Your task to perform on an android device: add a label to a message in the gmail app Image 0: 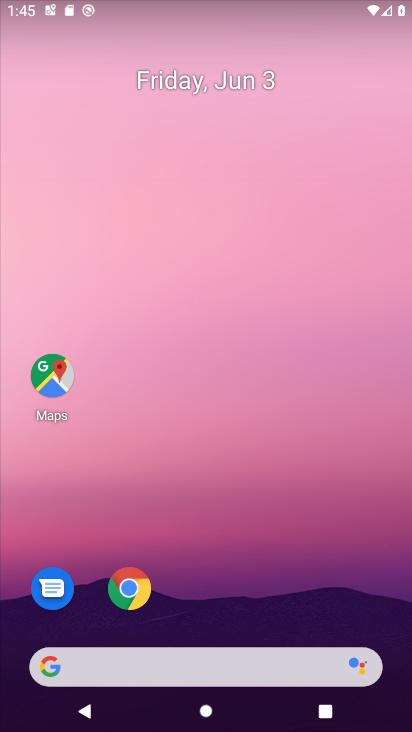
Step 0: drag from (195, 617) to (152, 43)
Your task to perform on an android device: add a label to a message in the gmail app Image 1: 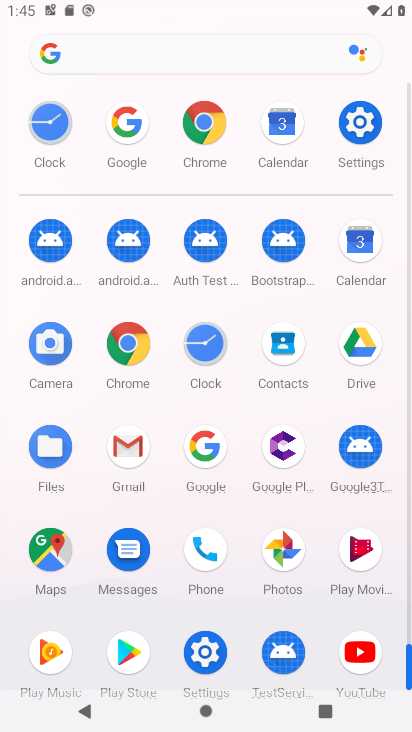
Step 1: click (122, 467)
Your task to perform on an android device: add a label to a message in the gmail app Image 2: 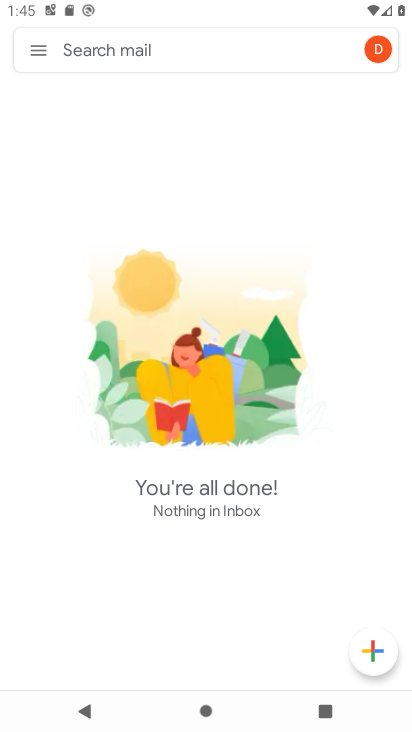
Step 2: click (34, 48)
Your task to perform on an android device: add a label to a message in the gmail app Image 3: 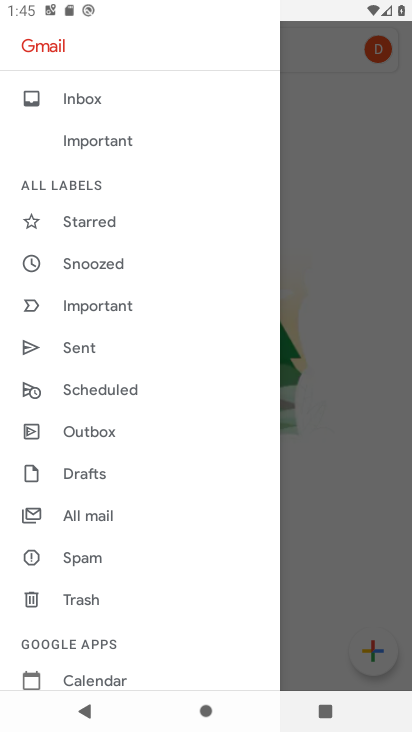
Step 3: click (95, 511)
Your task to perform on an android device: add a label to a message in the gmail app Image 4: 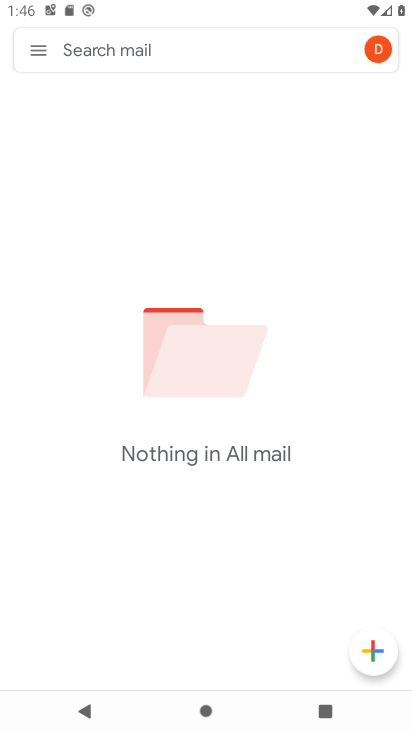
Step 4: task complete